Your task to perform on an android device: check google app version Image 0: 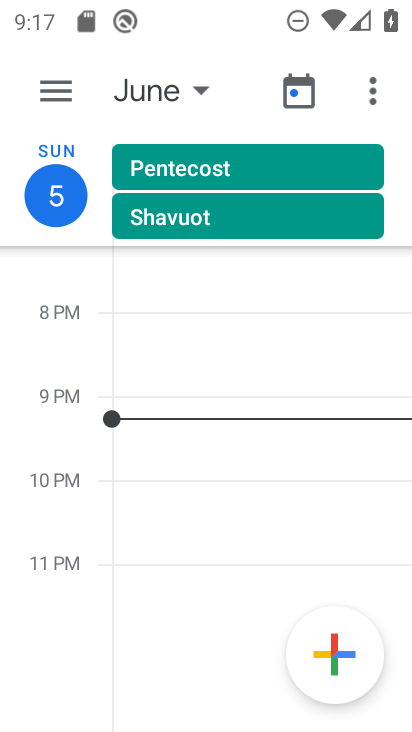
Step 0: press home button
Your task to perform on an android device: check google app version Image 1: 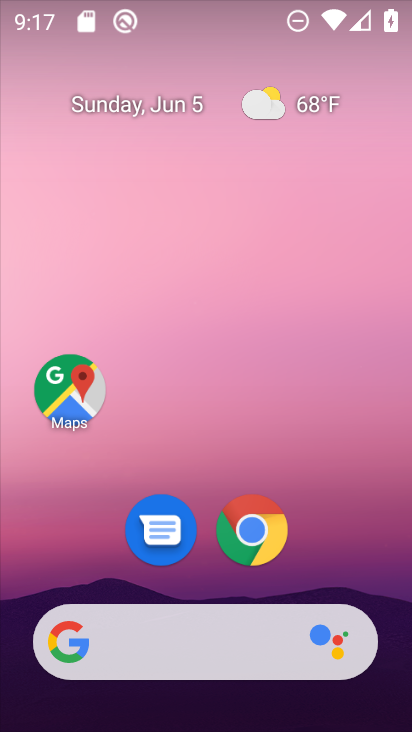
Step 1: click (247, 529)
Your task to perform on an android device: check google app version Image 2: 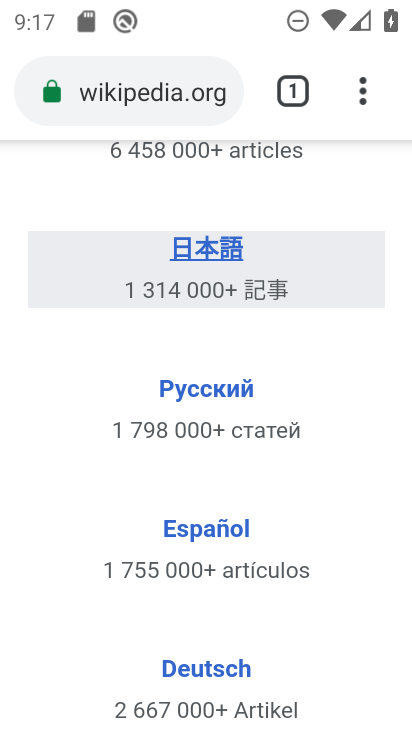
Step 2: click (362, 96)
Your task to perform on an android device: check google app version Image 3: 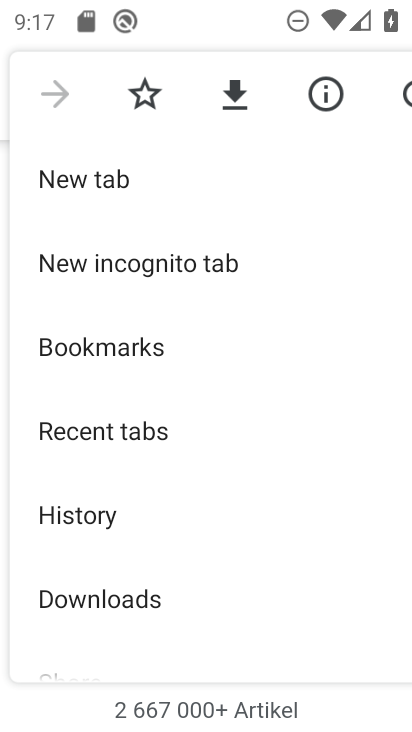
Step 3: drag from (174, 585) to (207, 268)
Your task to perform on an android device: check google app version Image 4: 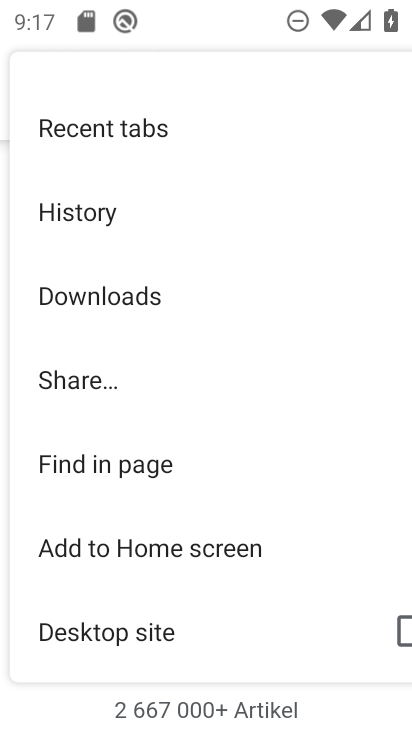
Step 4: drag from (286, 666) to (268, 255)
Your task to perform on an android device: check google app version Image 5: 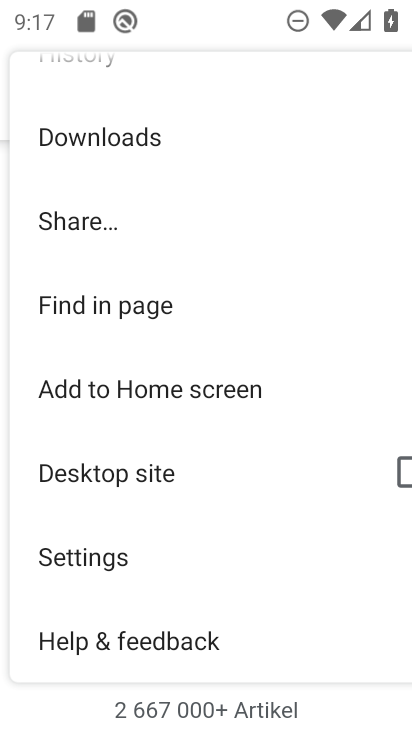
Step 5: click (54, 556)
Your task to perform on an android device: check google app version Image 6: 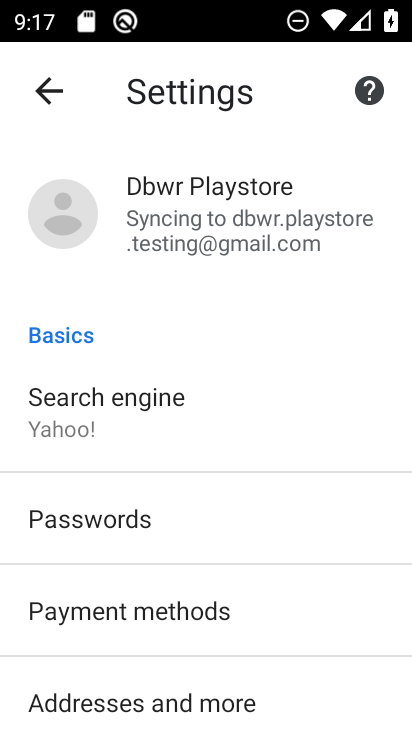
Step 6: drag from (277, 655) to (249, 240)
Your task to perform on an android device: check google app version Image 7: 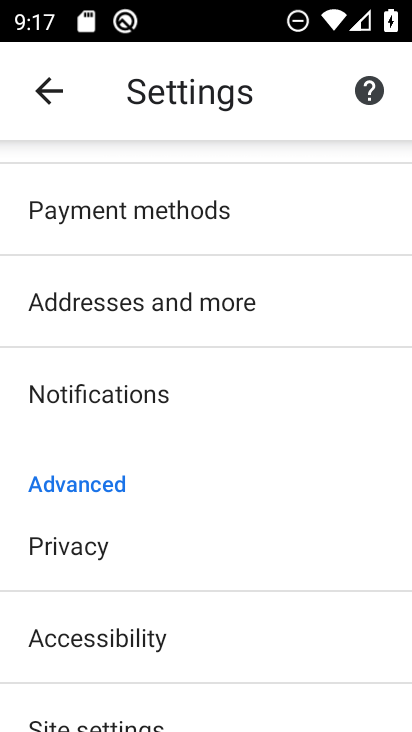
Step 7: drag from (197, 663) to (248, 205)
Your task to perform on an android device: check google app version Image 8: 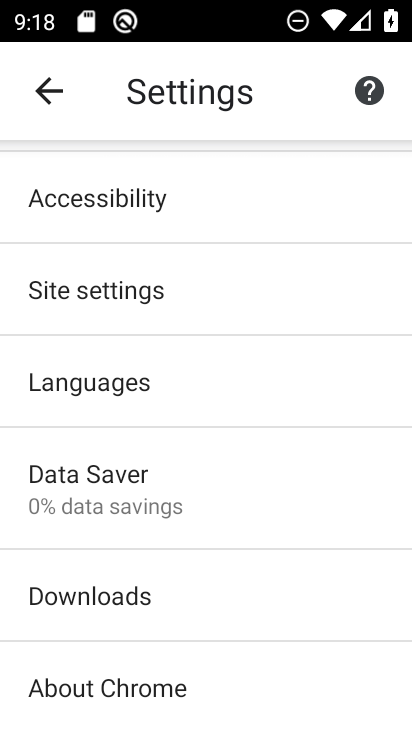
Step 8: click (83, 705)
Your task to perform on an android device: check google app version Image 9: 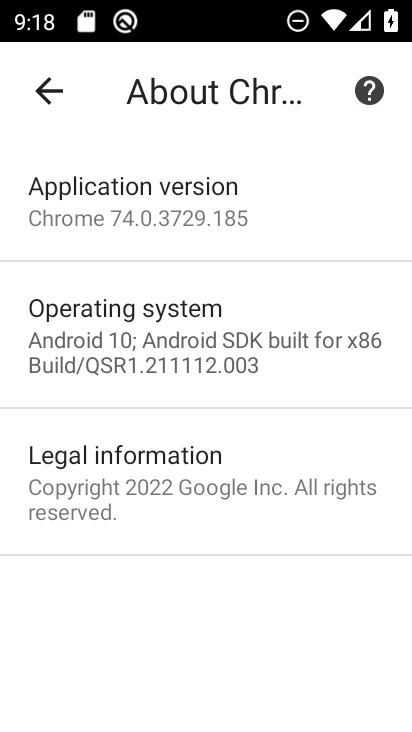
Step 9: click (132, 191)
Your task to perform on an android device: check google app version Image 10: 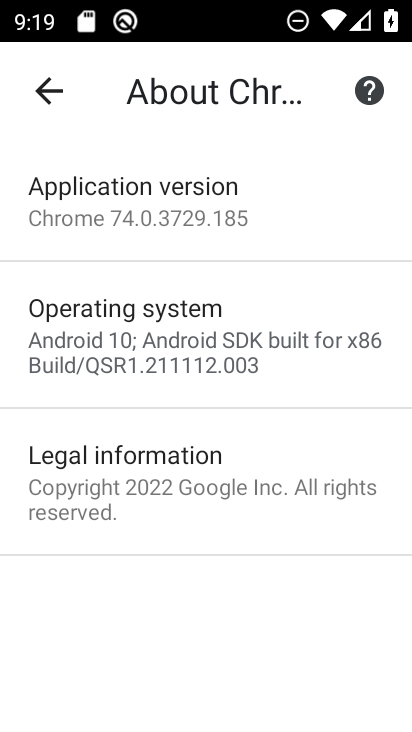
Step 10: click (132, 191)
Your task to perform on an android device: check google app version Image 11: 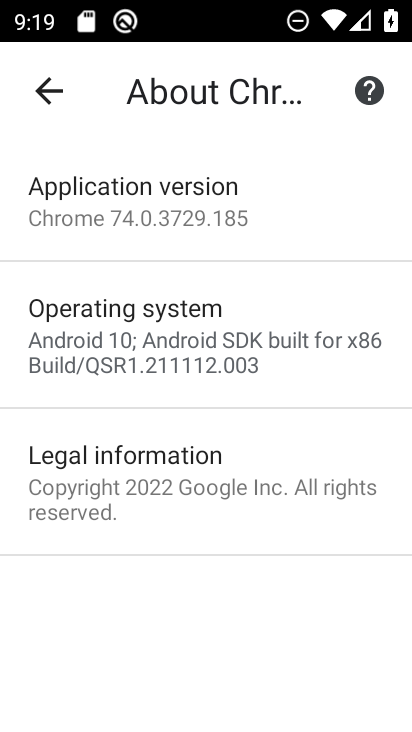
Step 11: task complete